Your task to perform on an android device: Open battery settings Image 0: 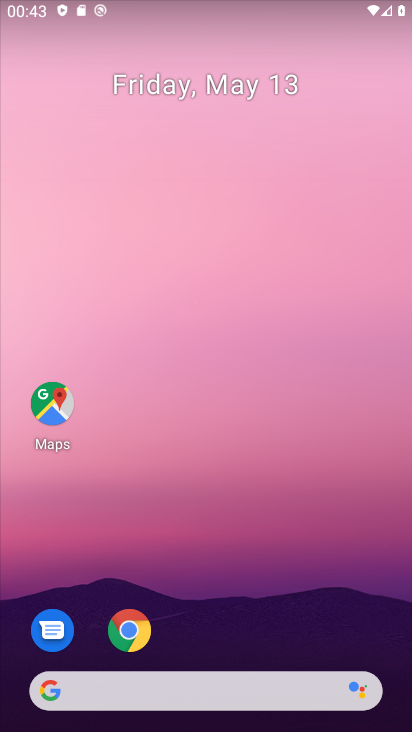
Step 0: drag from (254, 716) to (396, 280)
Your task to perform on an android device: Open battery settings Image 1: 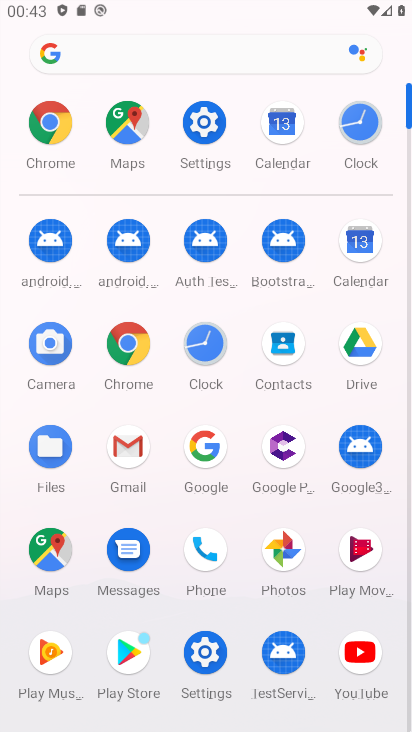
Step 1: click (207, 123)
Your task to perform on an android device: Open battery settings Image 2: 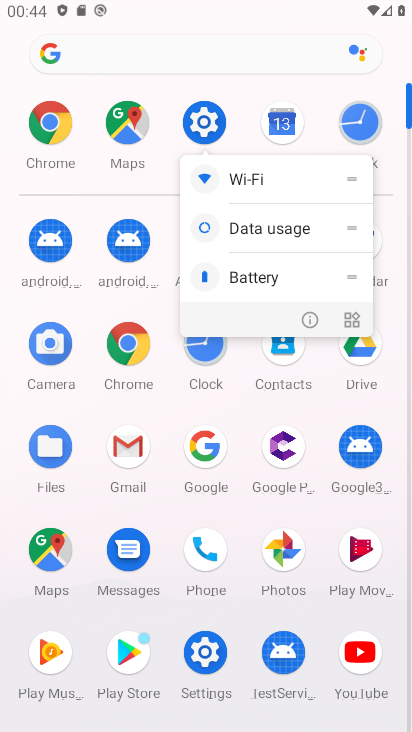
Step 2: click (198, 118)
Your task to perform on an android device: Open battery settings Image 3: 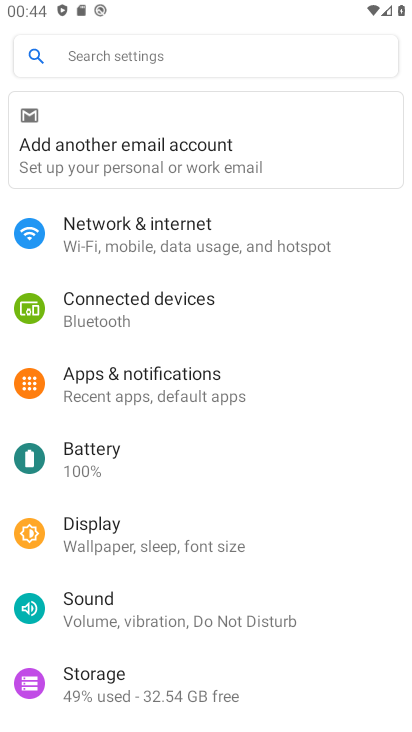
Step 3: click (98, 460)
Your task to perform on an android device: Open battery settings Image 4: 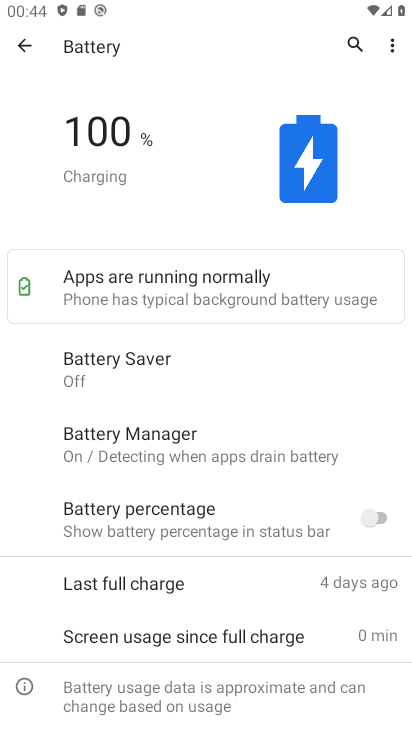
Step 4: task complete